Your task to perform on an android device: turn off location Image 0: 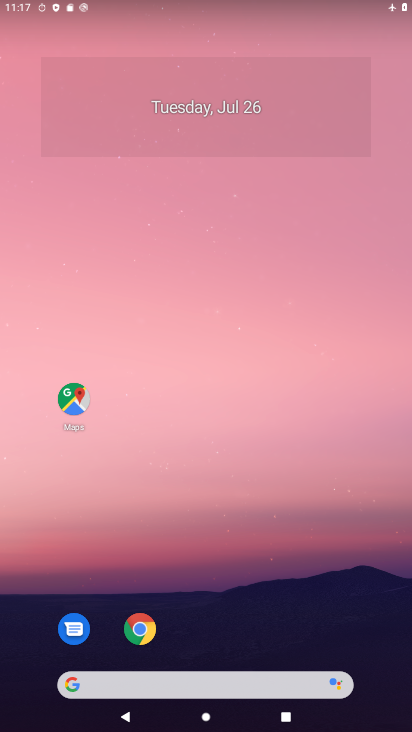
Step 0: drag from (361, 631) to (284, 40)
Your task to perform on an android device: turn off location Image 1: 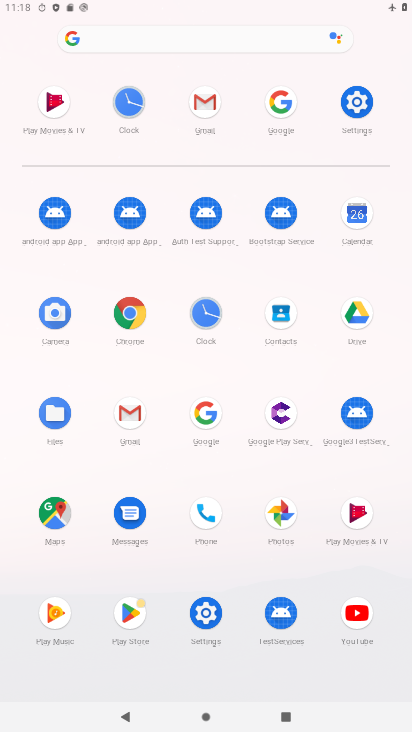
Step 1: click (199, 608)
Your task to perform on an android device: turn off location Image 2: 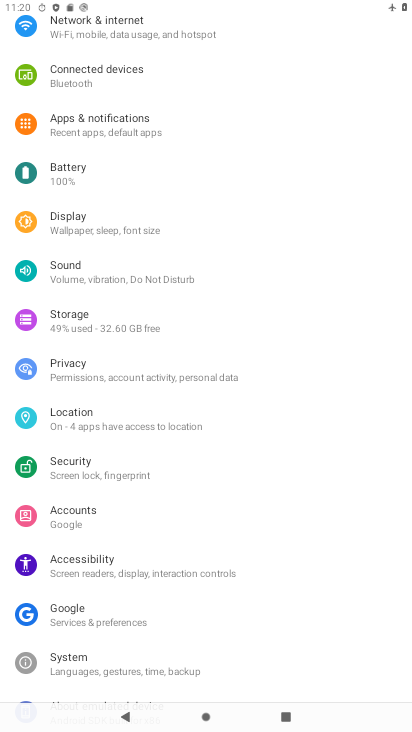
Step 2: click (75, 416)
Your task to perform on an android device: turn off location Image 3: 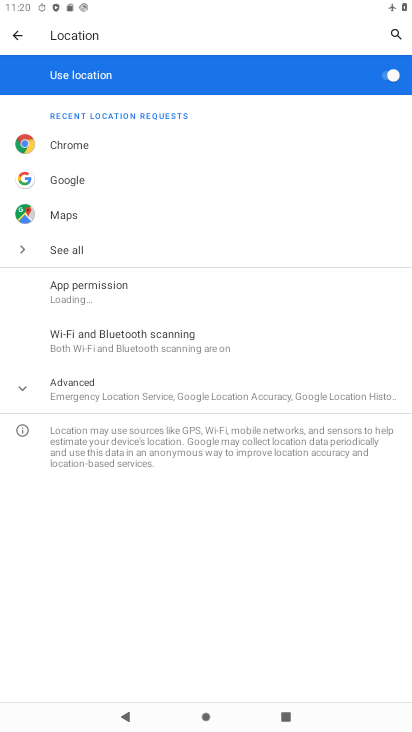
Step 3: click (383, 73)
Your task to perform on an android device: turn off location Image 4: 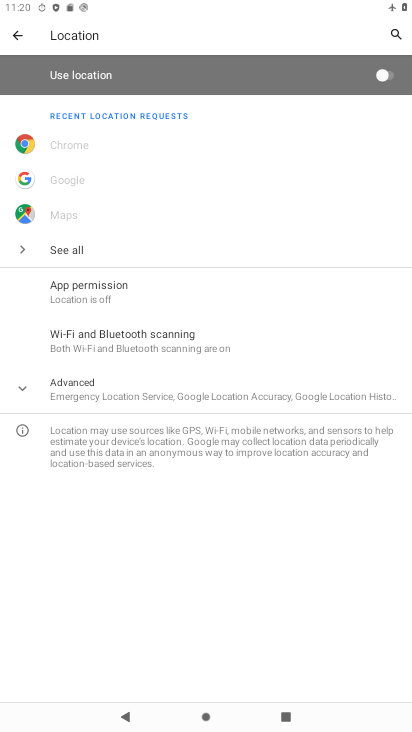
Step 4: task complete